Your task to perform on an android device: Go to Reddit.com Image 0: 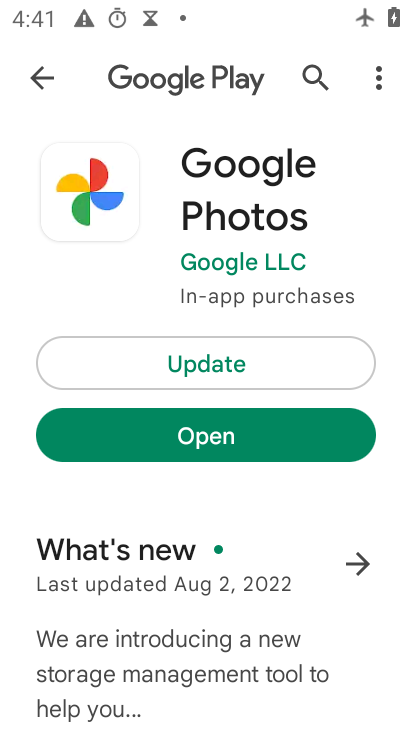
Step 0: click (46, 72)
Your task to perform on an android device: Go to Reddit.com Image 1: 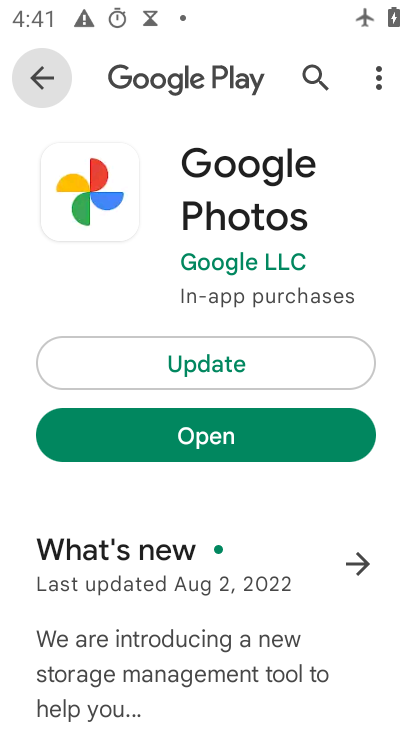
Step 1: click (43, 72)
Your task to perform on an android device: Go to Reddit.com Image 2: 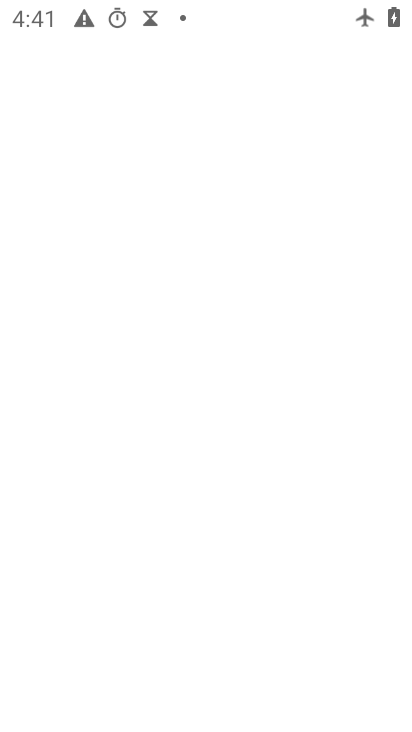
Step 2: click (43, 72)
Your task to perform on an android device: Go to Reddit.com Image 3: 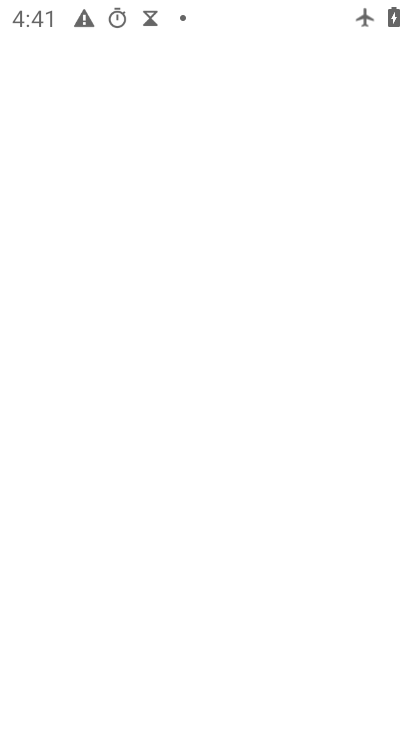
Step 3: click (43, 72)
Your task to perform on an android device: Go to Reddit.com Image 4: 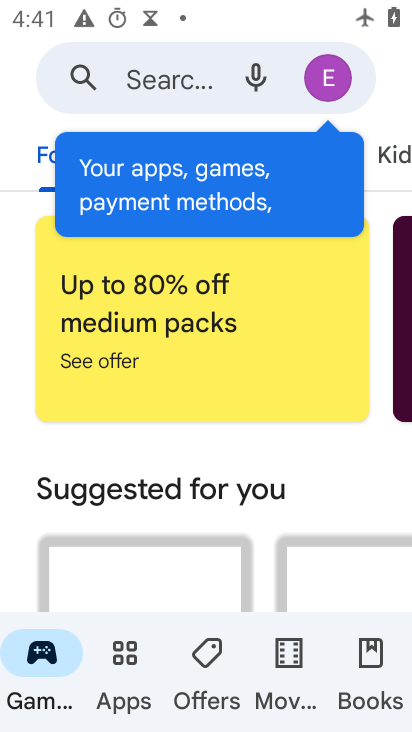
Step 4: press back button
Your task to perform on an android device: Go to Reddit.com Image 5: 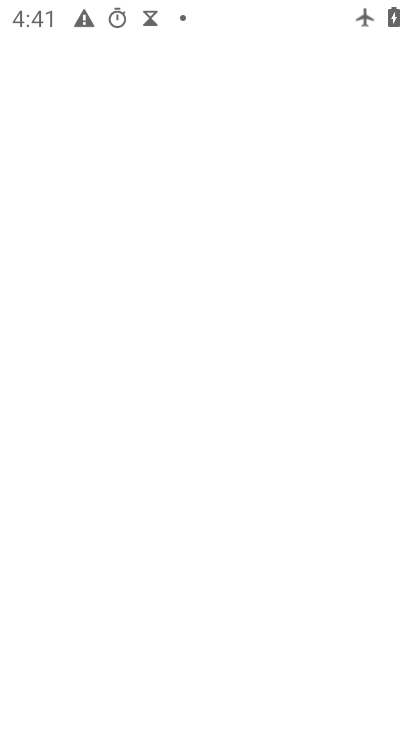
Step 5: press back button
Your task to perform on an android device: Go to Reddit.com Image 6: 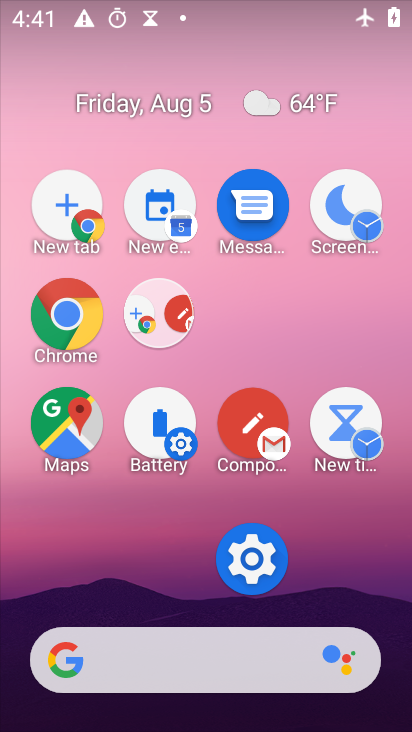
Step 6: click (85, 318)
Your task to perform on an android device: Go to Reddit.com Image 7: 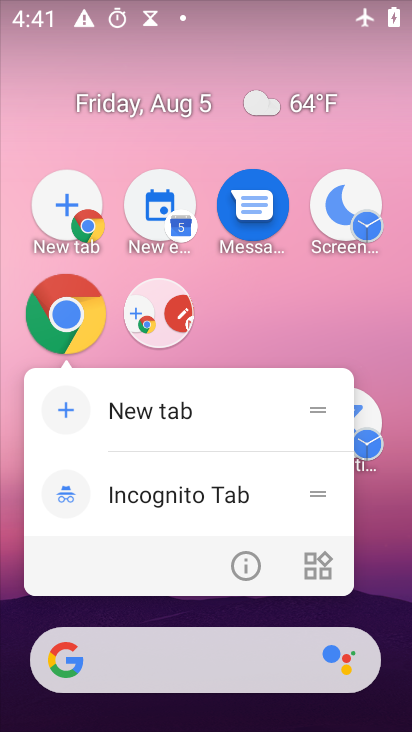
Step 7: click (84, 318)
Your task to perform on an android device: Go to Reddit.com Image 8: 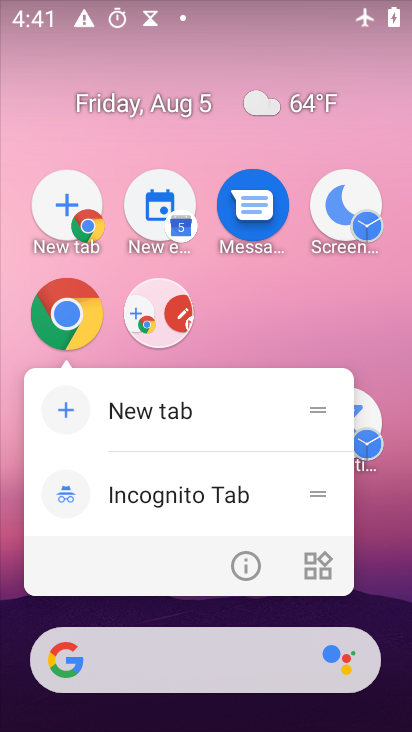
Step 8: click (84, 318)
Your task to perform on an android device: Go to Reddit.com Image 9: 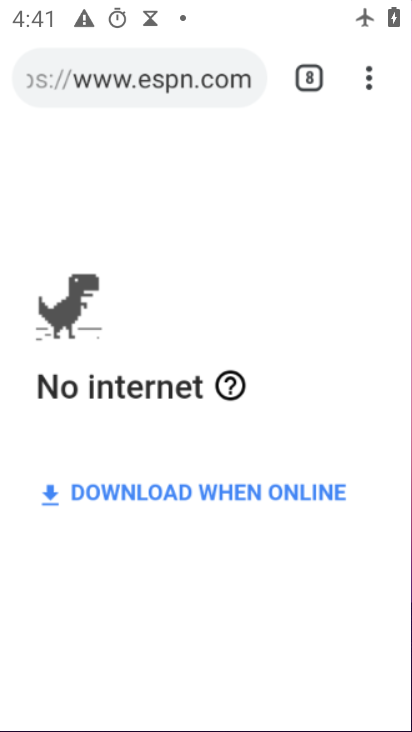
Step 9: click (84, 318)
Your task to perform on an android device: Go to Reddit.com Image 10: 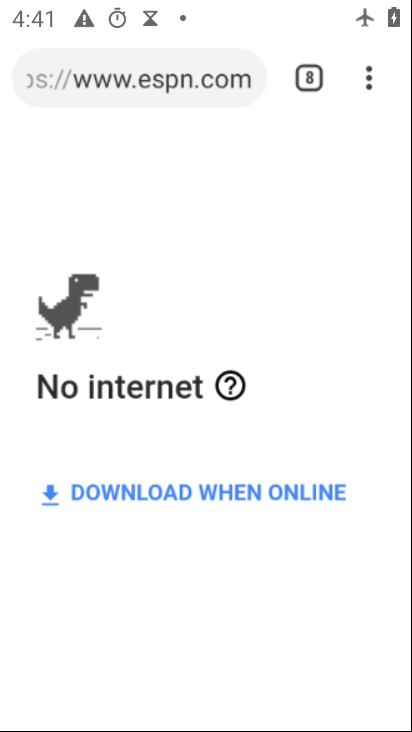
Step 10: click (84, 318)
Your task to perform on an android device: Go to Reddit.com Image 11: 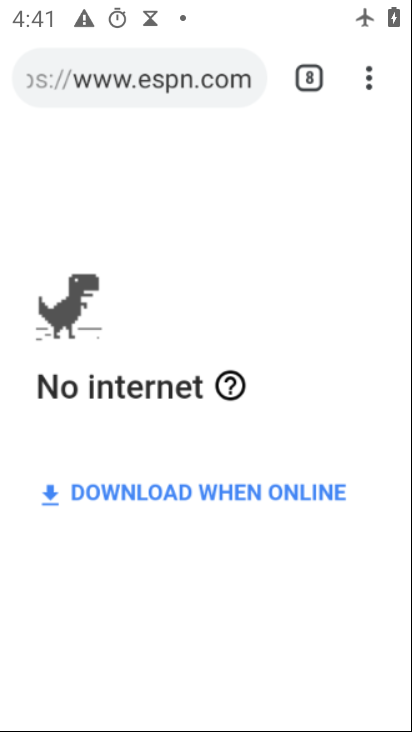
Step 11: click (84, 318)
Your task to perform on an android device: Go to Reddit.com Image 12: 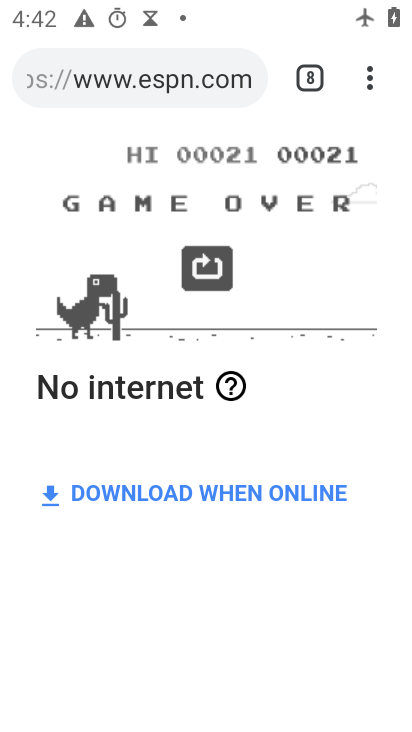
Step 12: task complete